Your task to perform on an android device: stop showing notifications on the lock screen Image 0: 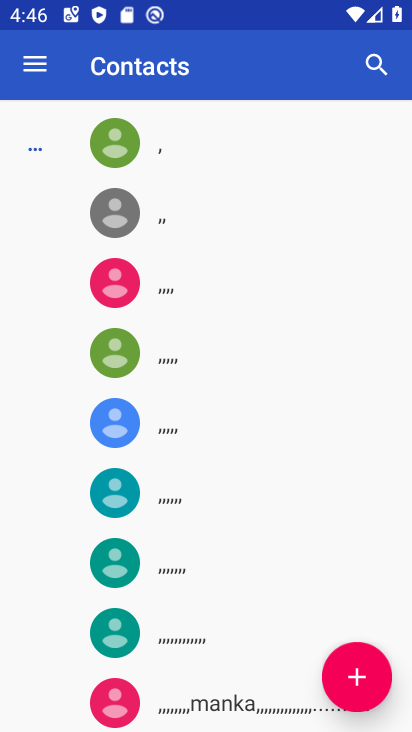
Step 0: press home button
Your task to perform on an android device: stop showing notifications on the lock screen Image 1: 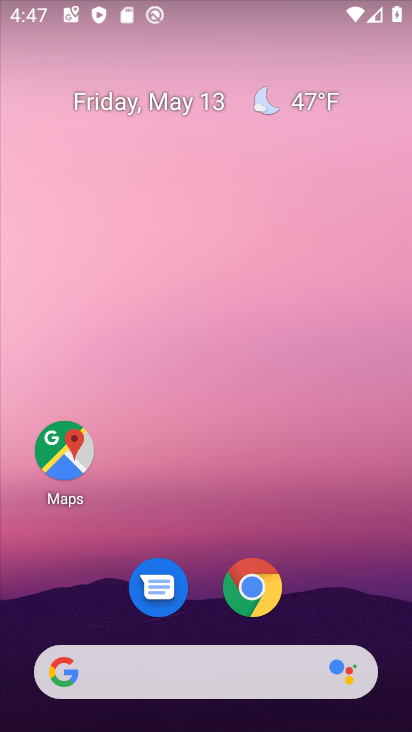
Step 1: drag from (324, 543) to (315, 117)
Your task to perform on an android device: stop showing notifications on the lock screen Image 2: 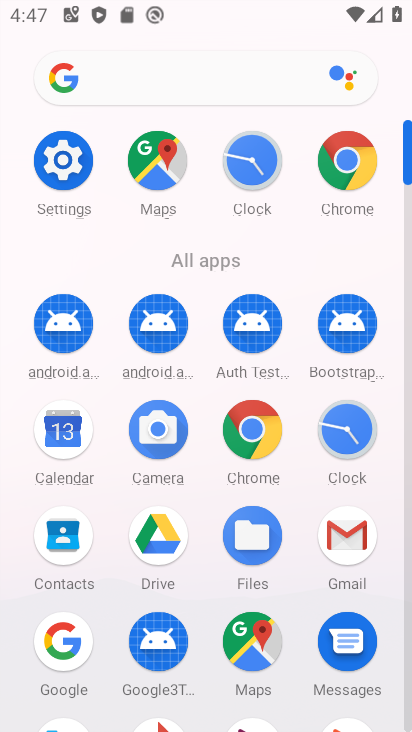
Step 2: click (59, 162)
Your task to perform on an android device: stop showing notifications on the lock screen Image 3: 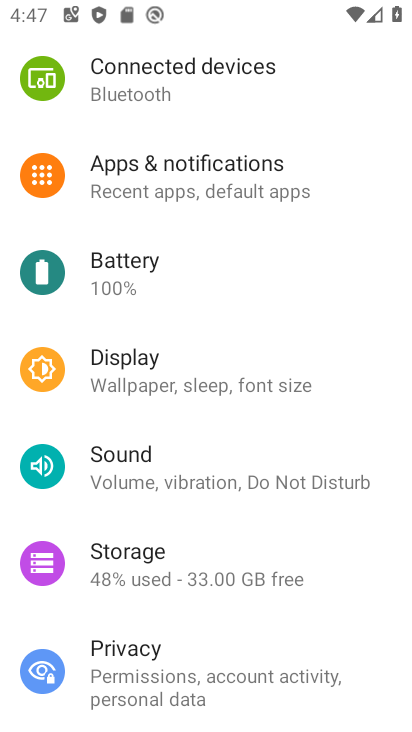
Step 3: drag from (236, 608) to (242, 570)
Your task to perform on an android device: stop showing notifications on the lock screen Image 4: 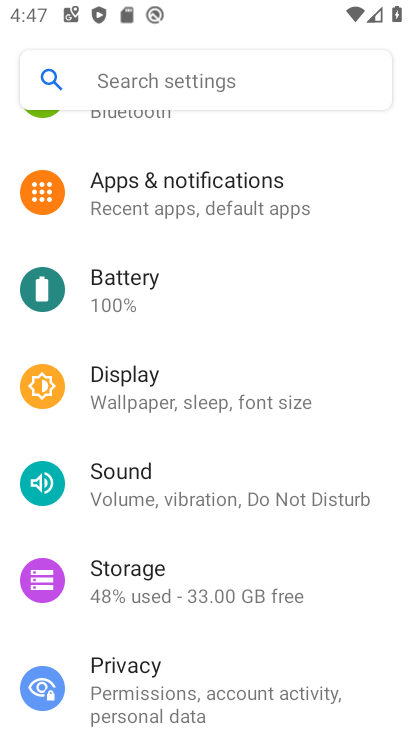
Step 4: click (188, 192)
Your task to perform on an android device: stop showing notifications on the lock screen Image 5: 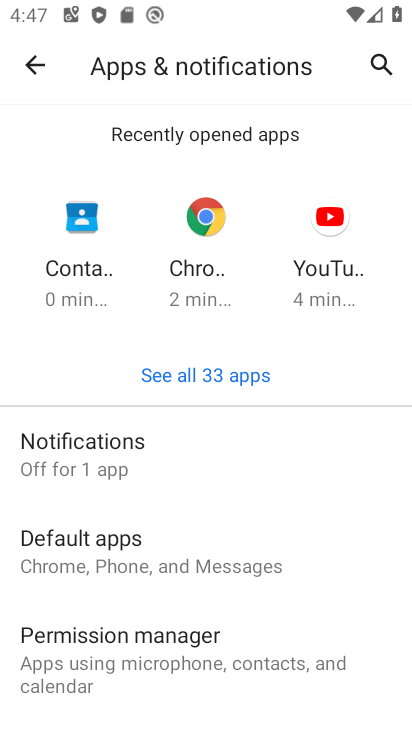
Step 5: click (93, 451)
Your task to perform on an android device: stop showing notifications on the lock screen Image 6: 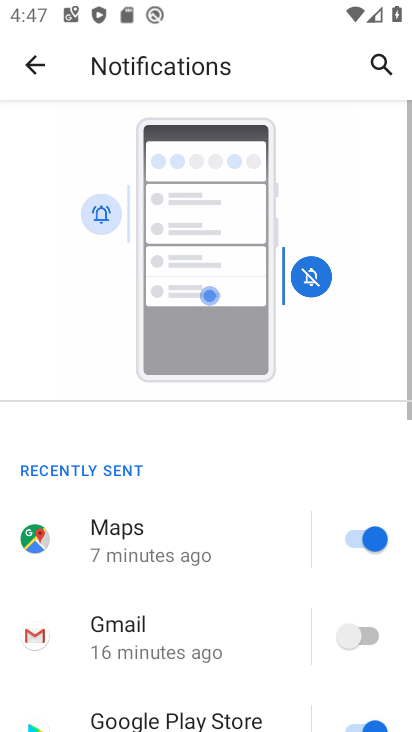
Step 6: drag from (304, 626) to (294, 210)
Your task to perform on an android device: stop showing notifications on the lock screen Image 7: 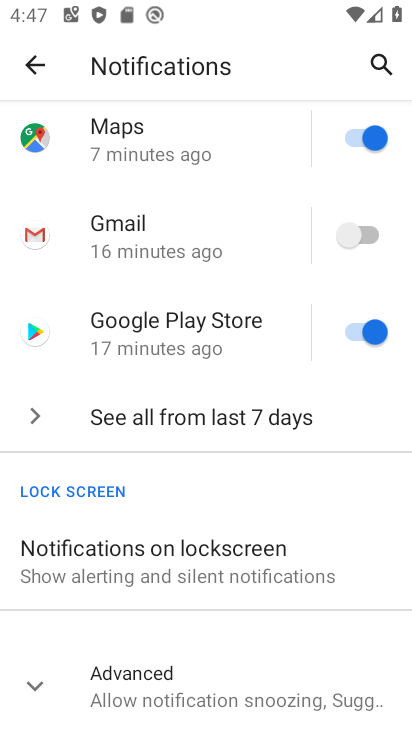
Step 7: click (125, 551)
Your task to perform on an android device: stop showing notifications on the lock screen Image 8: 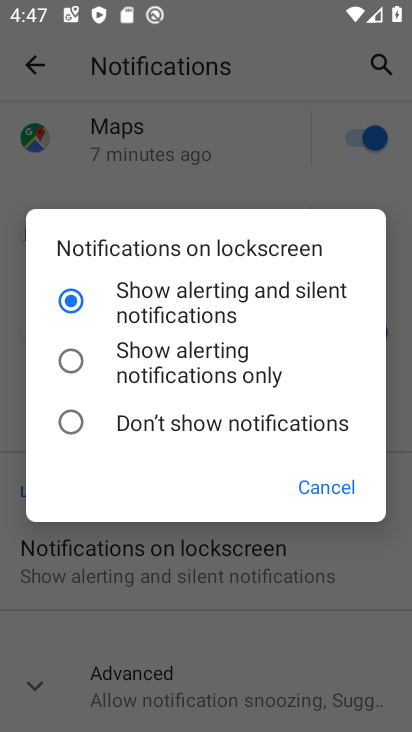
Step 8: click (144, 424)
Your task to perform on an android device: stop showing notifications on the lock screen Image 9: 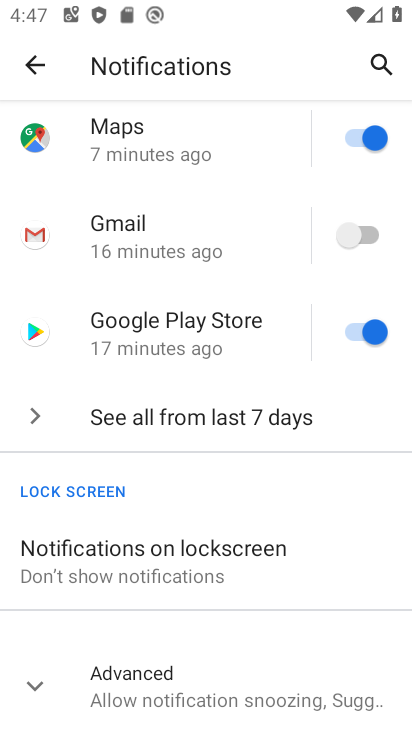
Step 9: task complete